Your task to perform on an android device: open a bookmark in the chrome app Image 0: 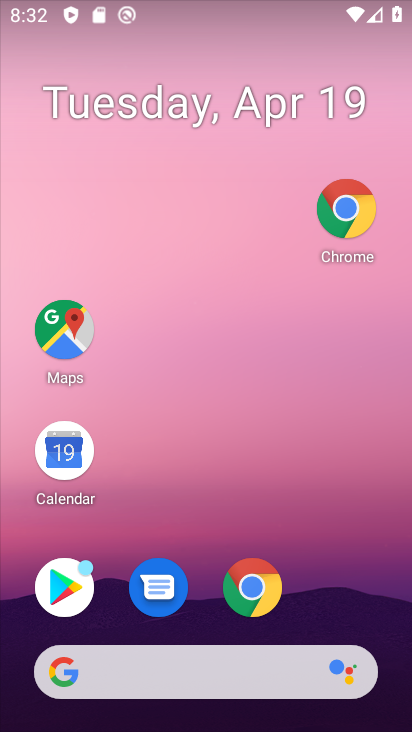
Step 0: drag from (333, 670) to (94, 61)
Your task to perform on an android device: open a bookmark in the chrome app Image 1: 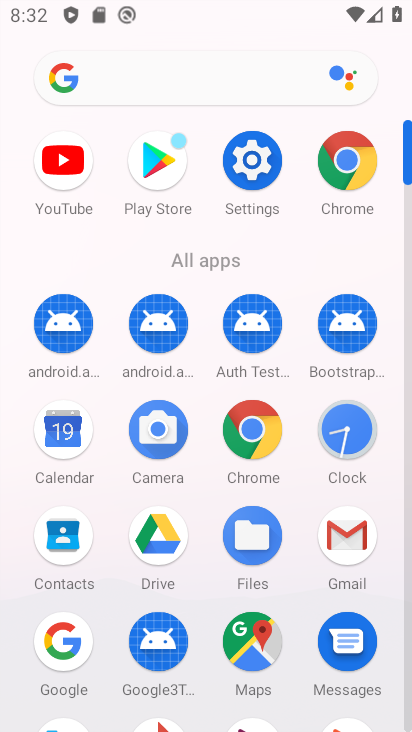
Step 1: drag from (365, 586) to (162, 208)
Your task to perform on an android device: open a bookmark in the chrome app Image 2: 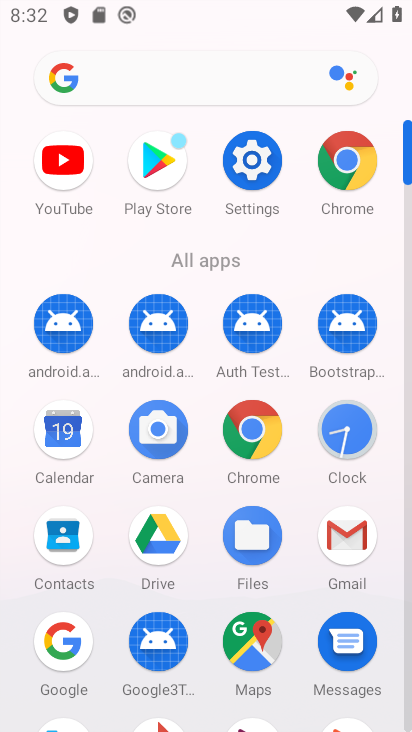
Step 2: click (248, 429)
Your task to perform on an android device: open a bookmark in the chrome app Image 3: 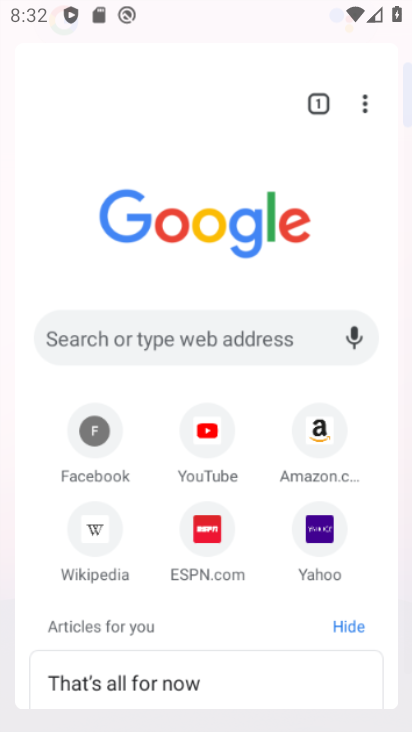
Step 3: click (248, 429)
Your task to perform on an android device: open a bookmark in the chrome app Image 4: 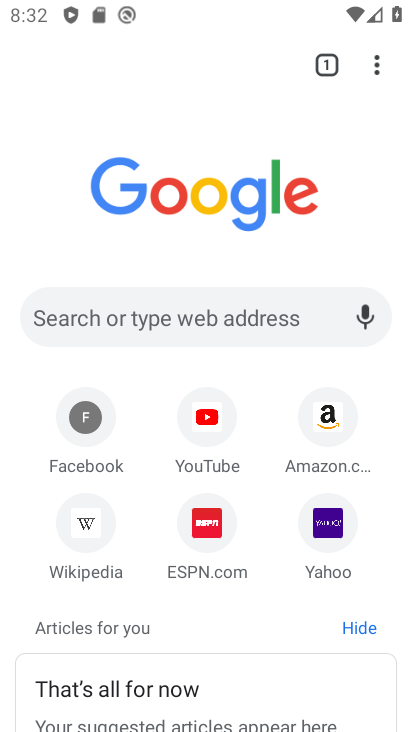
Step 4: click (374, 57)
Your task to perform on an android device: open a bookmark in the chrome app Image 5: 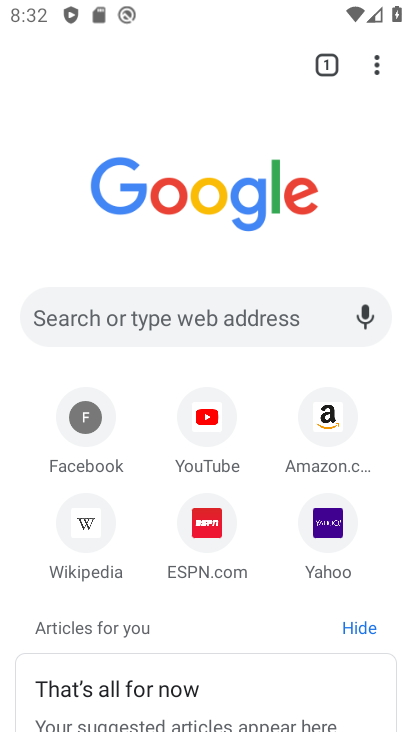
Step 5: click (368, 67)
Your task to perform on an android device: open a bookmark in the chrome app Image 6: 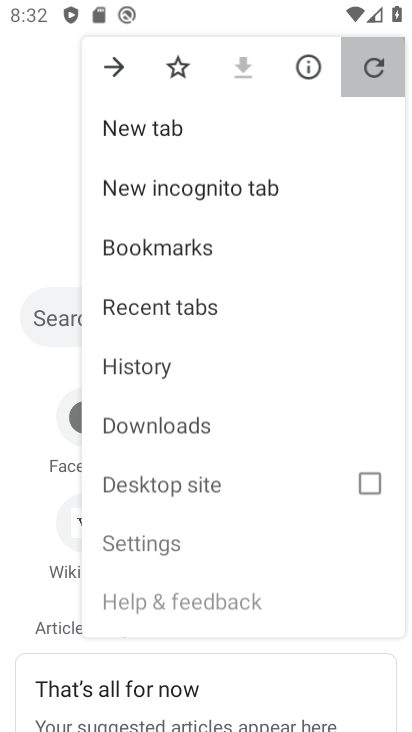
Step 6: click (368, 67)
Your task to perform on an android device: open a bookmark in the chrome app Image 7: 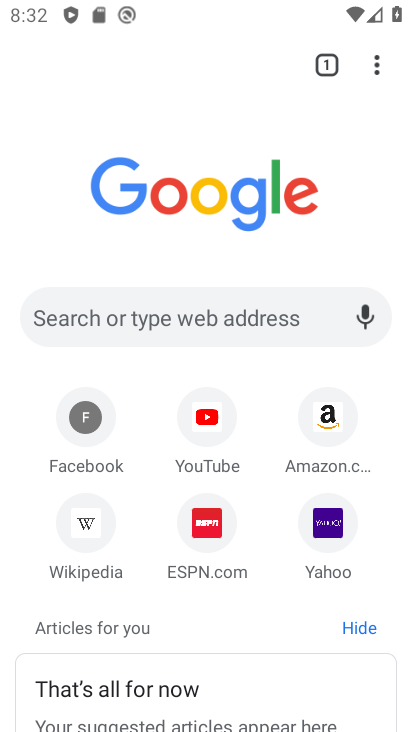
Step 7: click (372, 67)
Your task to perform on an android device: open a bookmark in the chrome app Image 8: 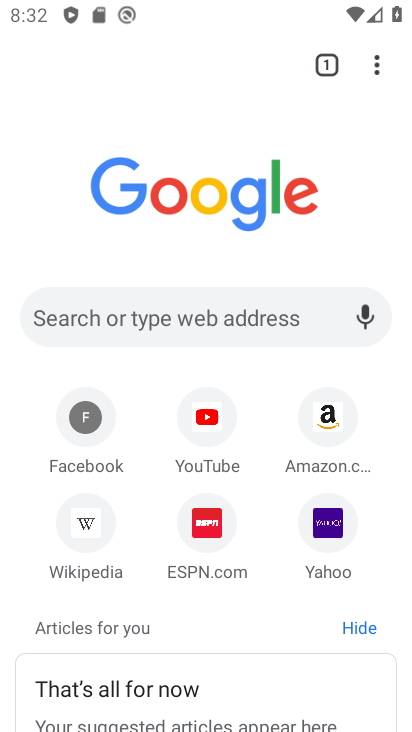
Step 8: click (372, 67)
Your task to perform on an android device: open a bookmark in the chrome app Image 9: 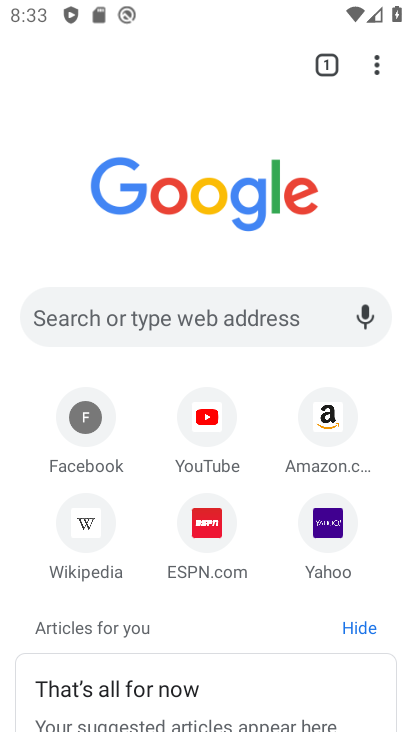
Step 9: click (379, 69)
Your task to perform on an android device: open a bookmark in the chrome app Image 10: 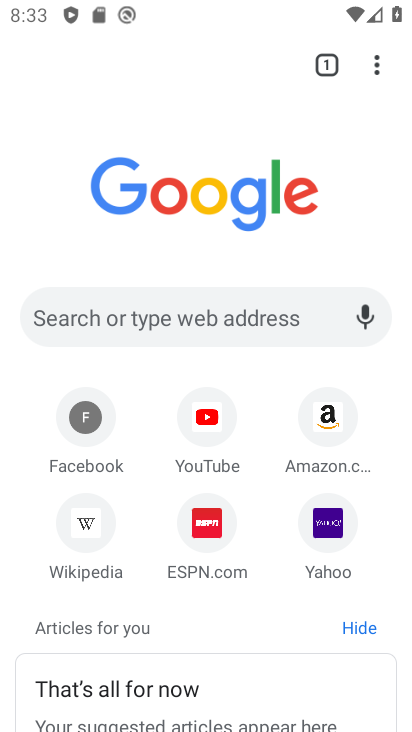
Step 10: click (379, 69)
Your task to perform on an android device: open a bookmark in the chrome app Image 11: 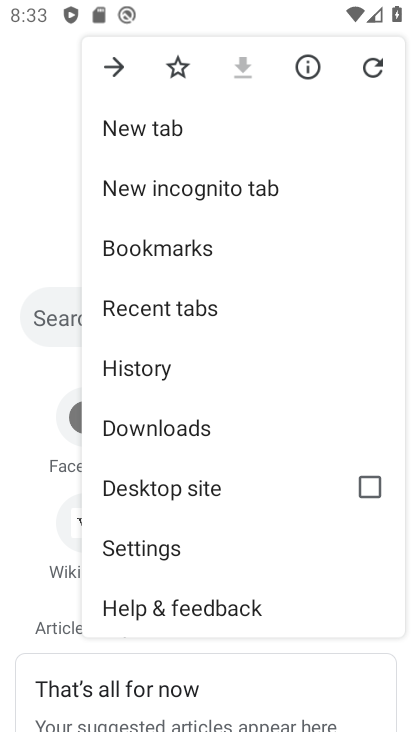
Step 11: click (162, 255)
Your task to perform on an android device: open a bookmark in the chrome app Image 12: 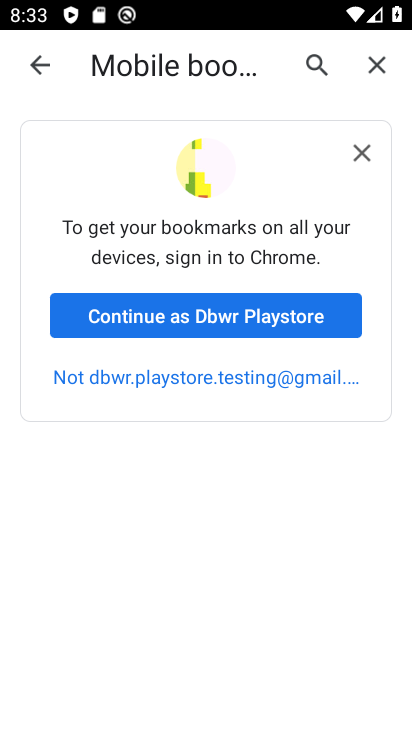
Step 12: click (40, 61)
Your task to perform on an android device: open a bookmark in the chrome app Image 13: 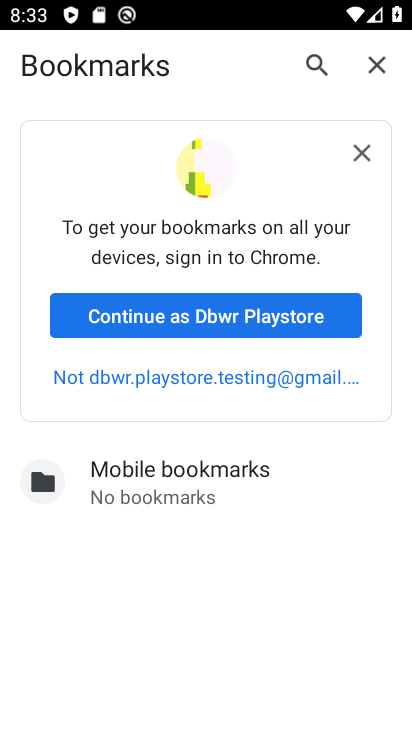
Step 13: click (270, 309)
Your task to perform on an android device: open a bookmark in the chrome app Image 14: 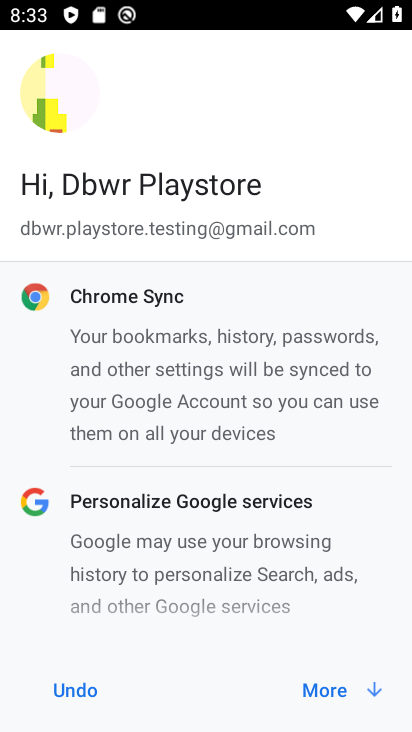
Step 14: click (340, 695)
Your task to perform on an android device: open a bookmark in the chrome app Image 15: 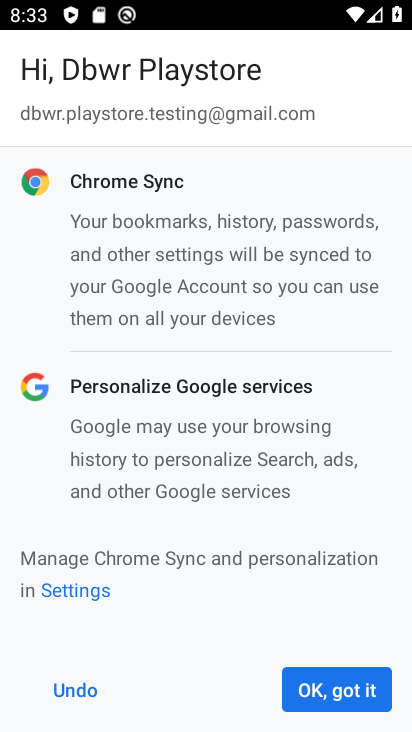
Step 15: click (340, 684)
Your task to perform on an android device: open a bookmark in the chrome app Image 16: 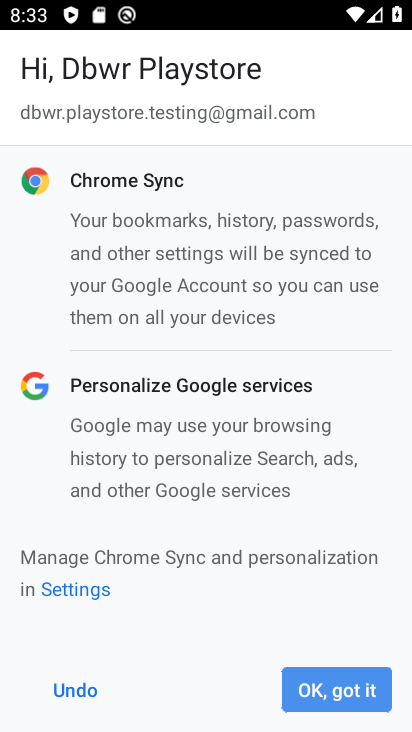
Step 16: click (340, 684)
Your task to perform on an android device: open a bookmark in the chrome app Image 17: 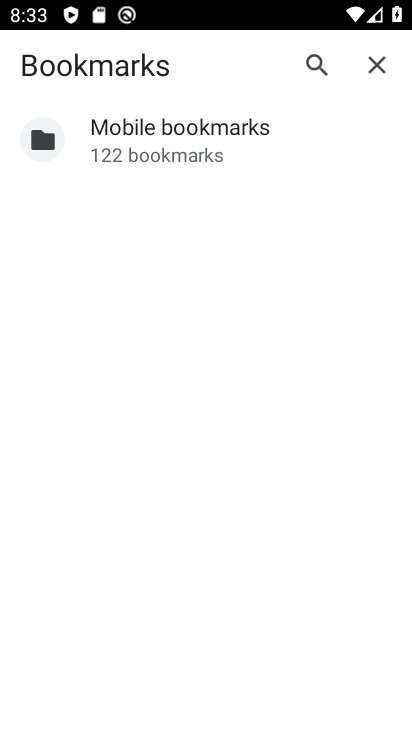
Step 17: click (173, 134)
Your task to perform on an android device: open a bookmark in the chrome app Image 18: 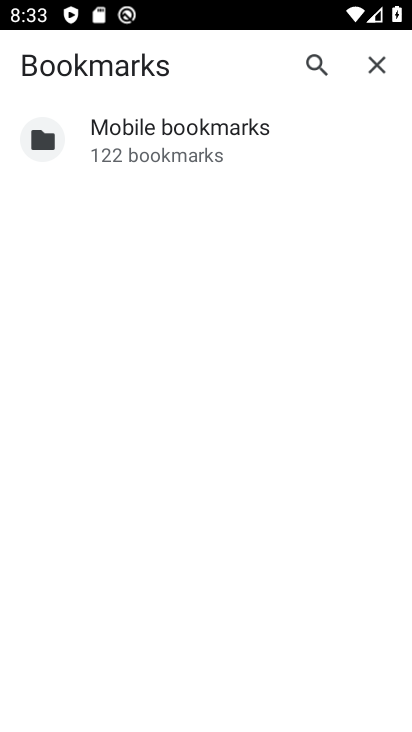
Step 18: click (173, 134)
Your task to perform on an android device: open a bookmark in the chrome app Image 19: 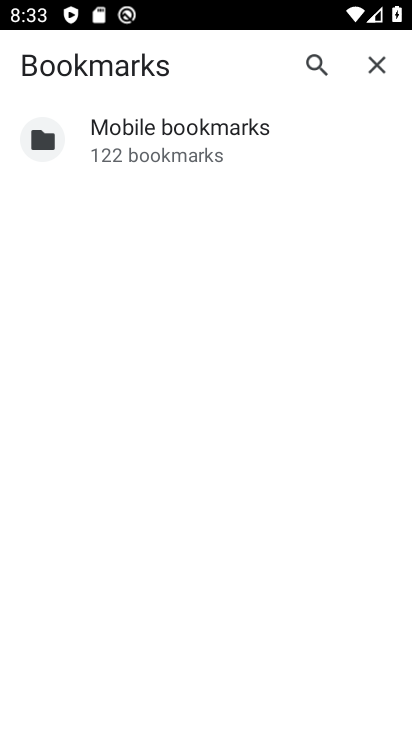
Step 19: click (173, 134)
Your task to perform on an android device: open a bookmark in the chrome app Image 20: 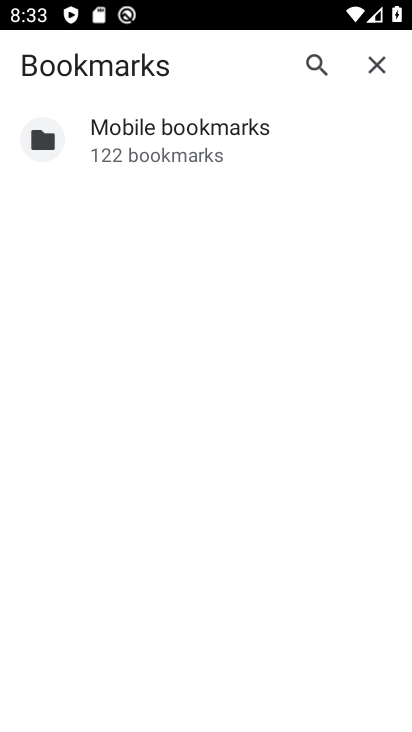
Step 20: click (173, 134)
Your task to perform on an android device: open a bookmark in the chrome app Image 21: 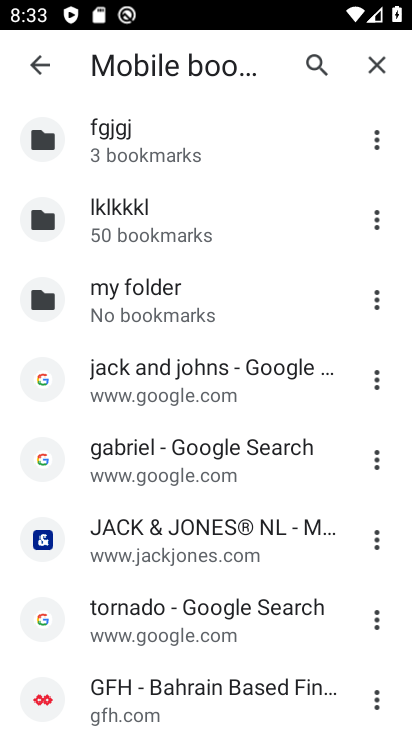
Step 21: task complete